Your task to perform on an android device: set an alarm Image 0: 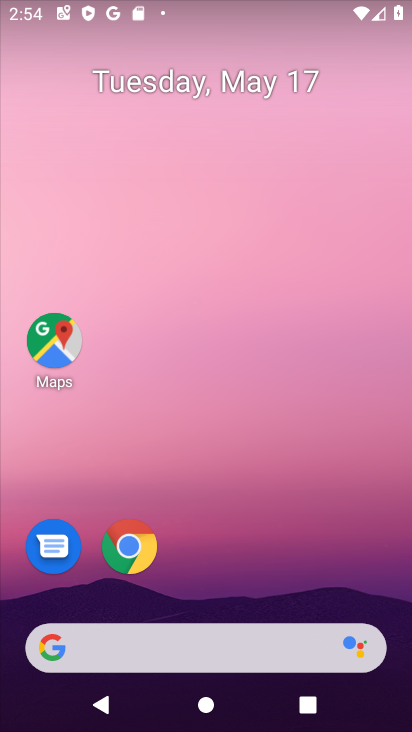
Step 0: drag from (400, 651) to (409, 404)
Your task to perform on an android device: set an alarm Image 1: 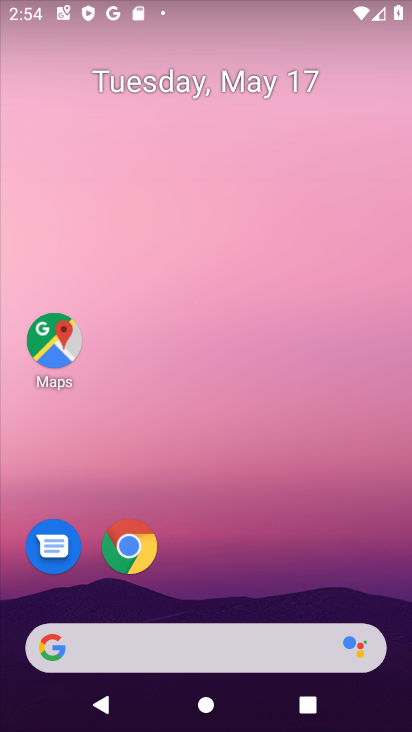
Step 1: drag from (400, 666) to (356, 224)
Your task to perform on an android device: set an alarm Image 2: 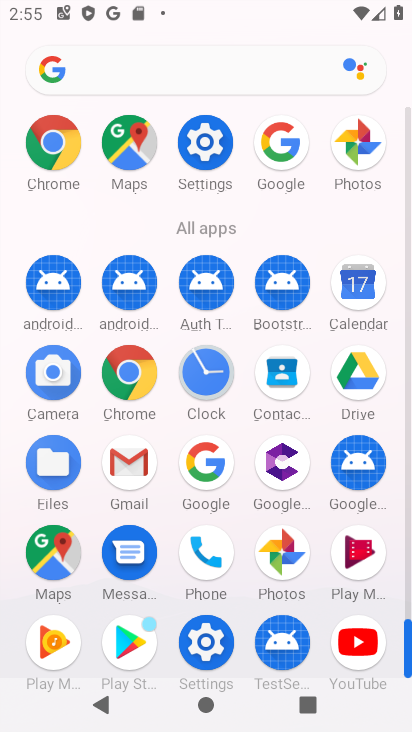
Step 2: click (206, 365)
Your task to perform on an android device: set an alarm Image 3: 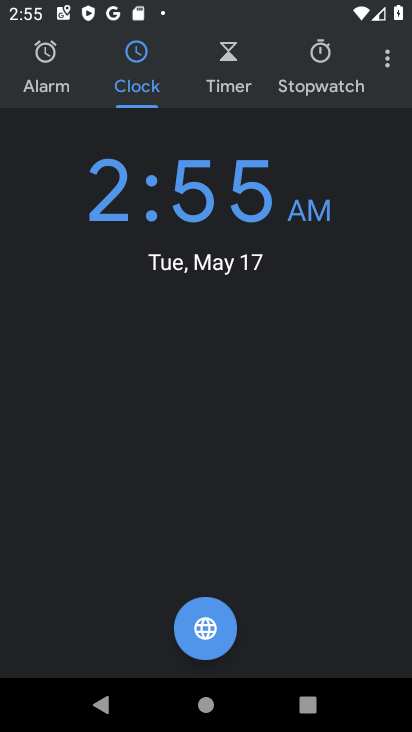
Step 3: click (49, 69)
Your task to perform on an android device: set an alarm Image 4: 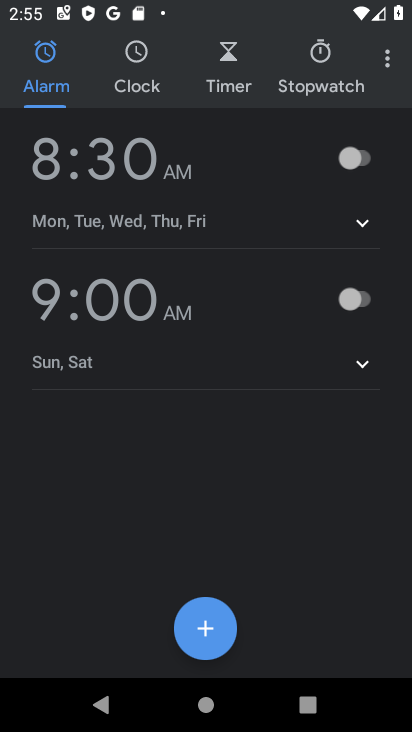
Step 4: click (366, 157)
Your task to perform on an android device: set an alarm Image 5: 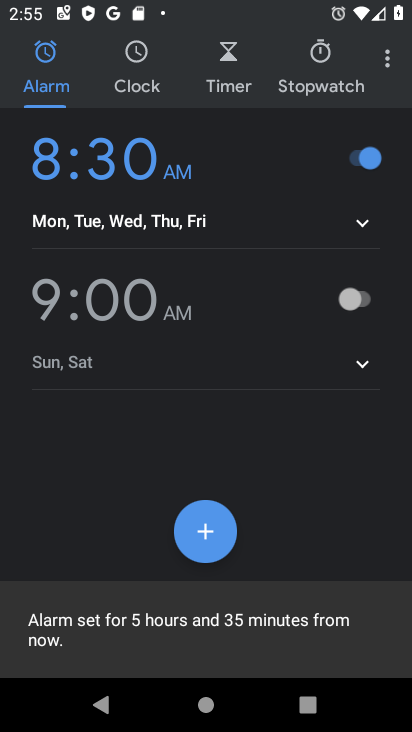
Step 5: task complete